Your task to perform on an android device: open a bookmark in the chrome app Image 0: 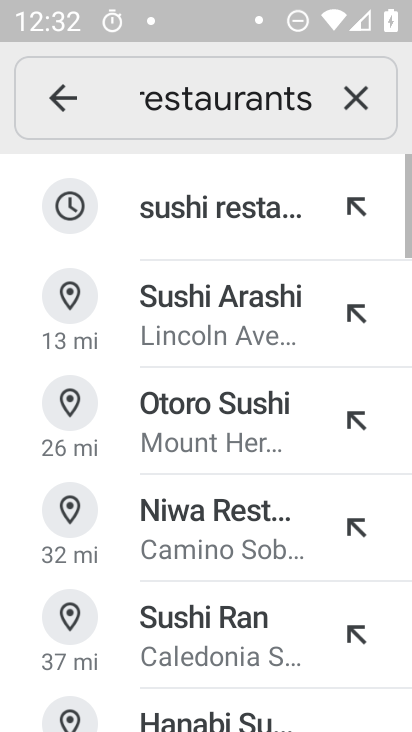
Step 0: press home button
Your task to perform on an android device: open a bookmark in the chrome app Image 1: 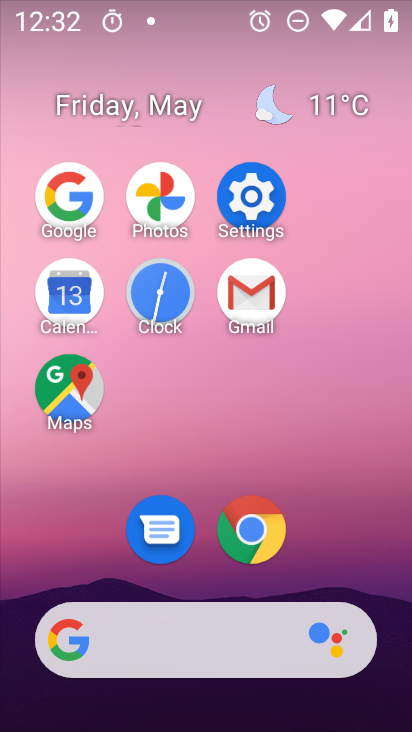
Step 1: click (247, 532)
Your task to perform on an android device: open a bookmark in the chrome app Image 2: 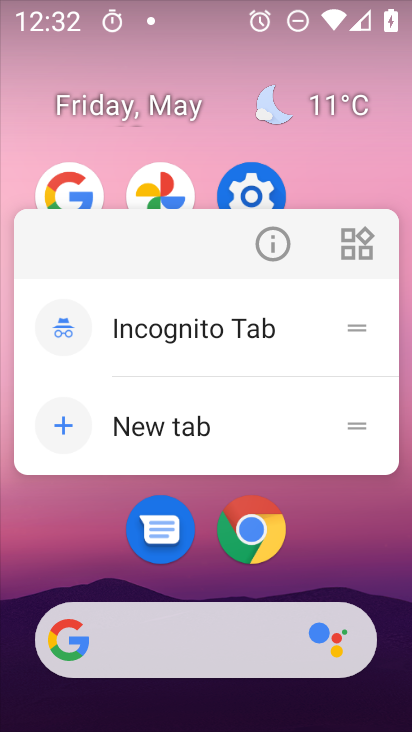
Step 2: click (247, 532)
Your task to perform on an android device: open a bookmark in the chrome app Image 3: 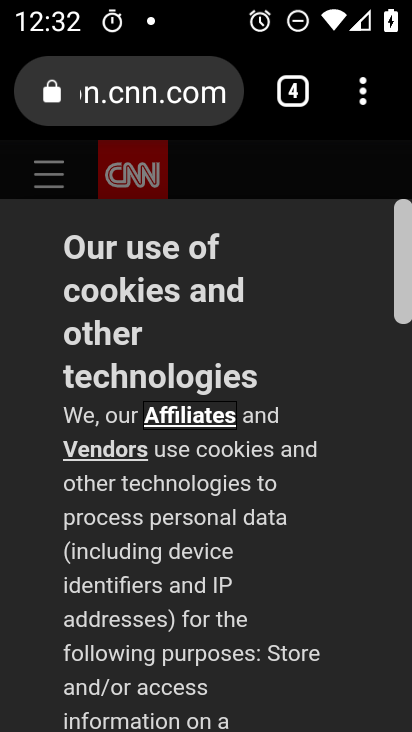
Step 3: click (371, 86)
Your task to perform on an android device: open a bookmark in the chrome app Image 4: 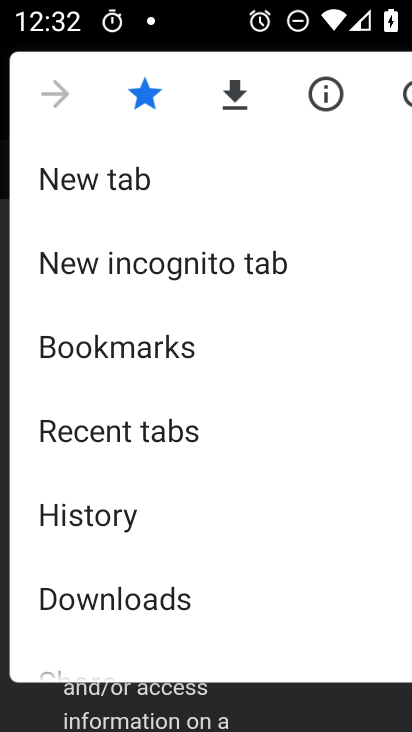
Step 4: click (204, 373)
Your task to perform on an android device: open a bookmark in the chrome app Image 5: 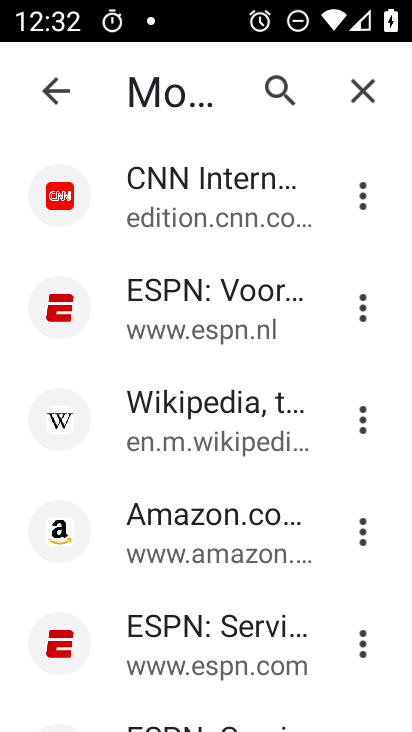
Step 5: task complete